Your task to perform on an android device: Open maps Image 0: 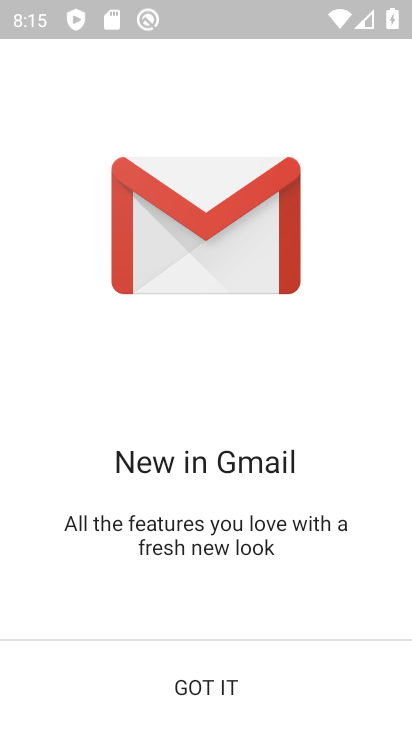
Step 0: click (195, 697)
Your task to perform on an android device: Open maps Image 1: 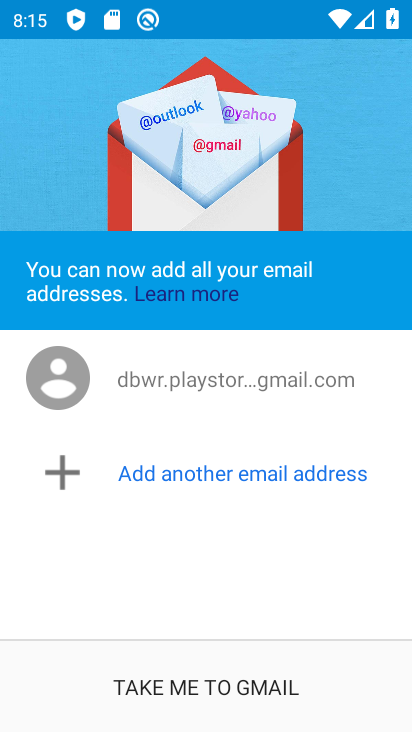
Step 1: drag from (238, 709) to (389, 668)
Your task to perform on an android device: Open maps Image 2: 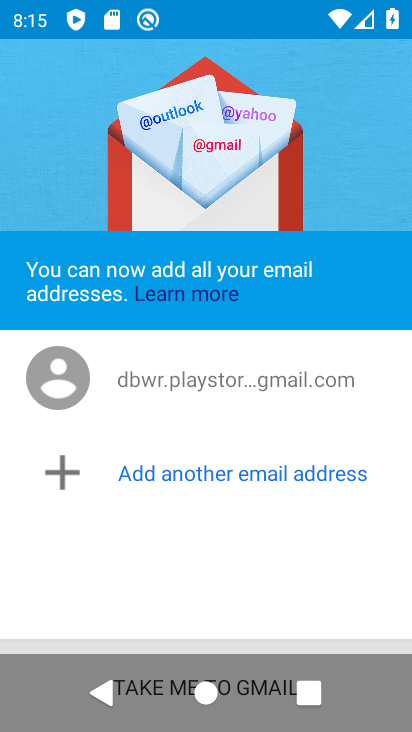
Step 2: press home button
Your task to perform on an android device: Open maps Image 3: 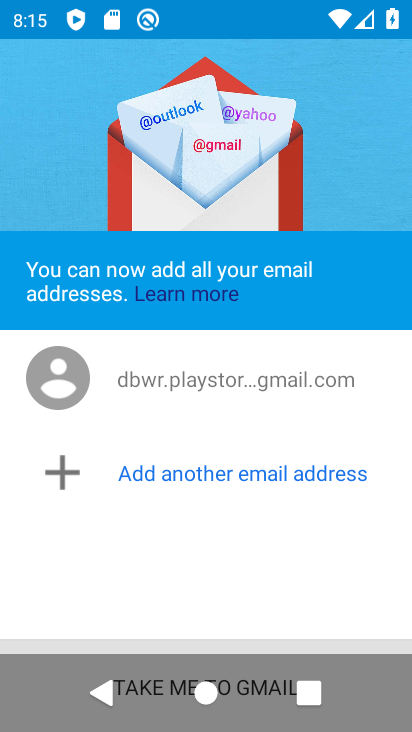
Step 3: drag from (389, 668) to (411, 475)
Your task to perform on an android device: Open maps Image 4: 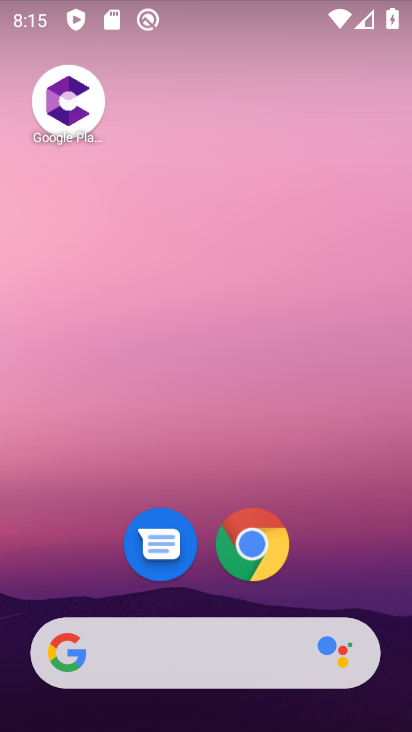
Step 4: drag from (328, 585) to (327, 0)
Your task to perform on an android device: Open maps Image 5: 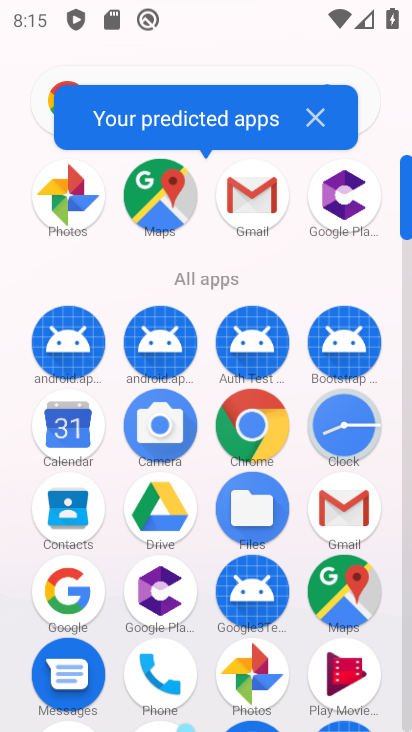
Step 5: click (174, 191)
Your task to perform on an android device: Open maps Image 6: 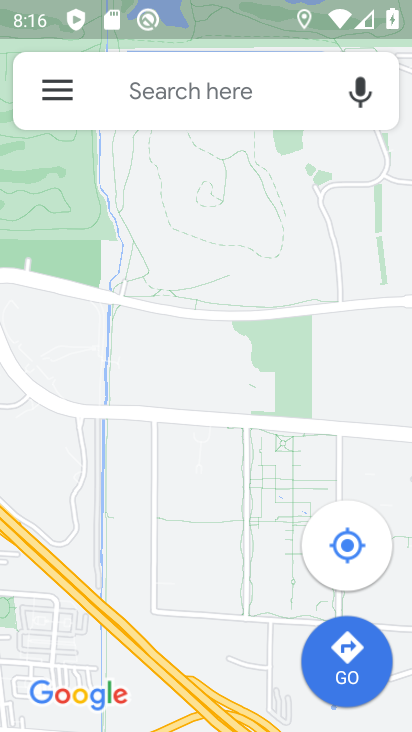
Step 6: task complete